Your task to perform on an android device: Go to battery settings Image 0: 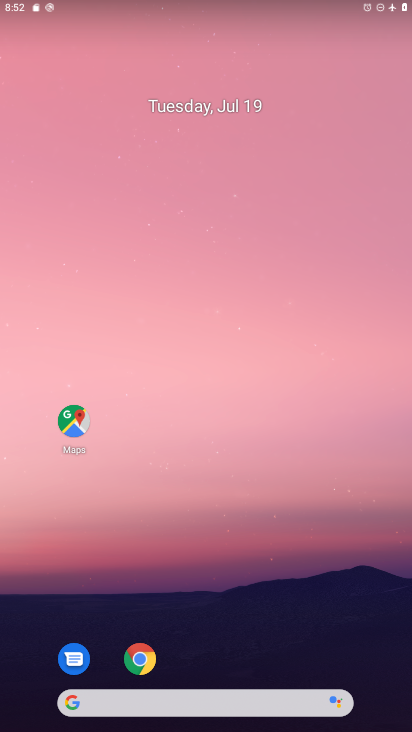
Step 0: drag from (201, 682) to (133, 324)
Your task to perform on an android device: Go to battery settings Image 1: 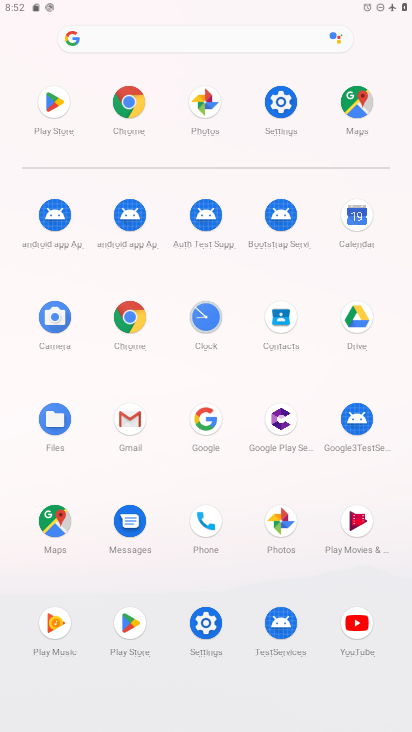
Step 1: click (285, 87)
Your task to perform on an android device: Go to battery settings Image 2: 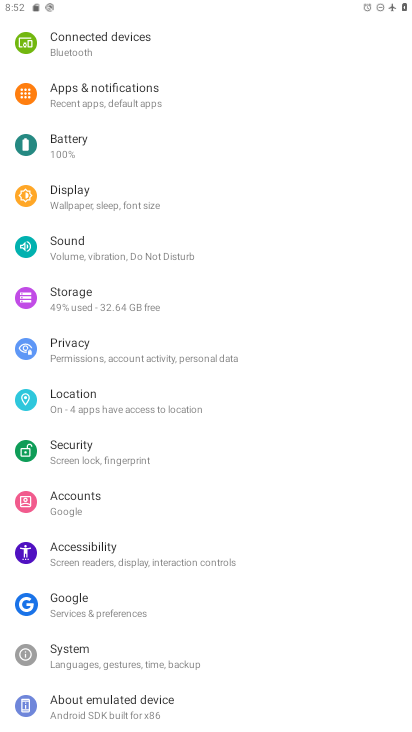
Step 2: click (73, 128)
Your task to perform on an android device: Go to battery settings Image 3: 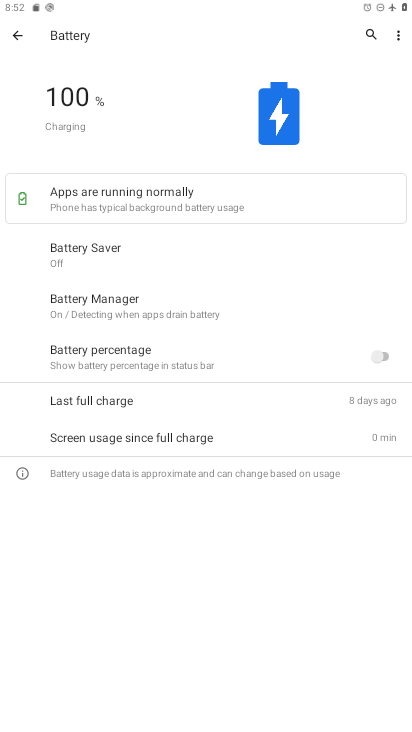
Step 3: task complete